Your task to perform on an android device: Show me the alarms in the clock app Image 0: 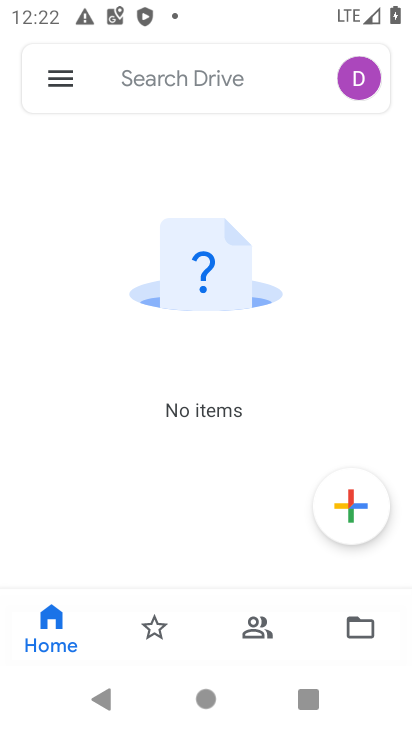
Step 0: press home button
Your task to perform on an android device: Show me the alarms in the clock app Image 1: 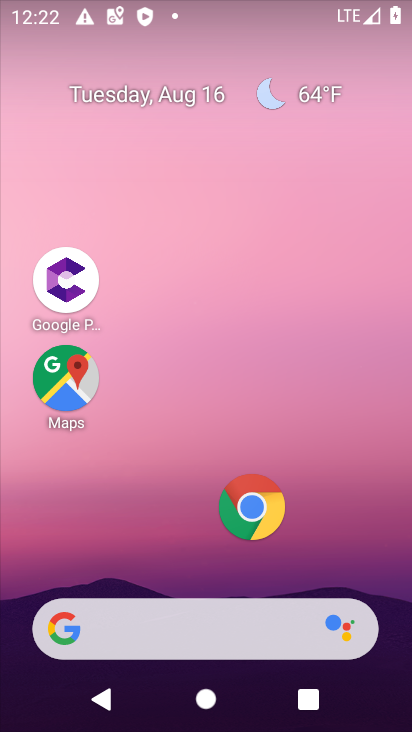
Step 1: drag from (169, 568) to (113, 78)
Your task to perform on an android device: Show me the alarms in the clock app Image 2: 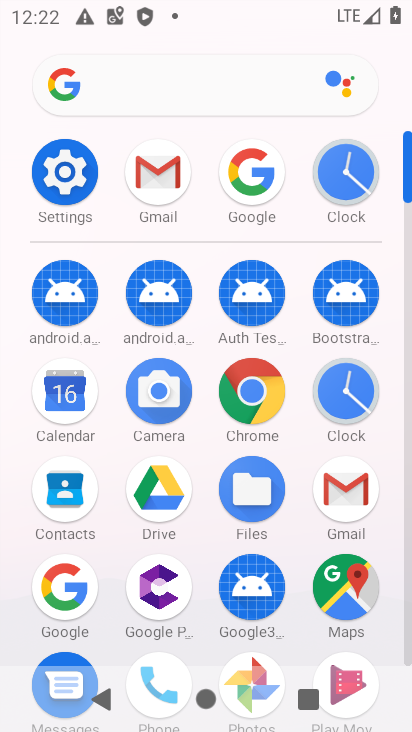
Step 2: click (339, 179)
Your task to perform on an android device: Show me the alarms in the clock app Image 3: 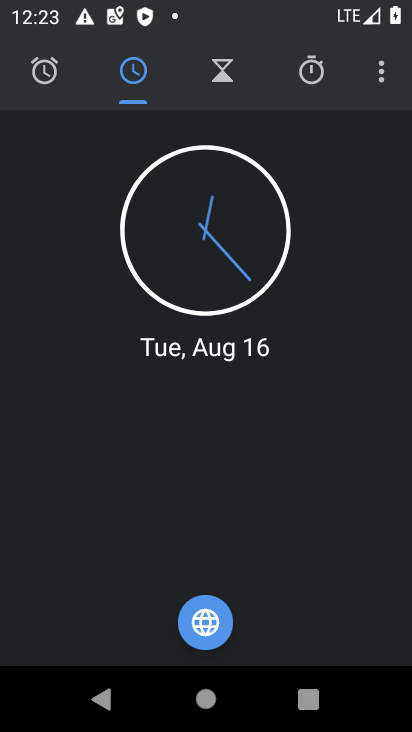
Step 3: click (32, 72)
Your task to perform on an android device: Show me the alarms in the clock app Image 4: 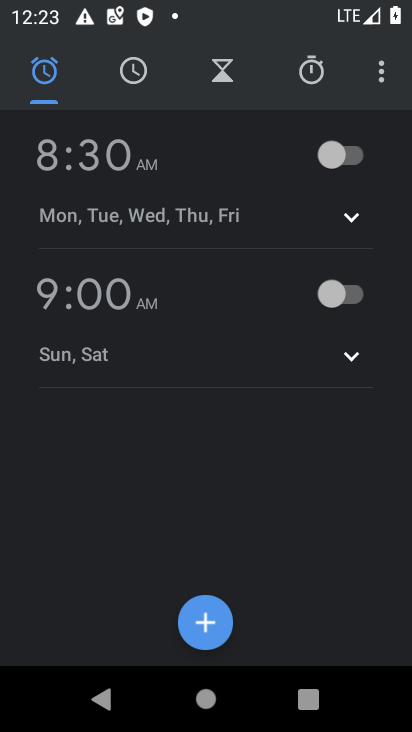
Step 4: task complete